Your task to perform on an android device: stop showing notifications on the lock screen Image 0: 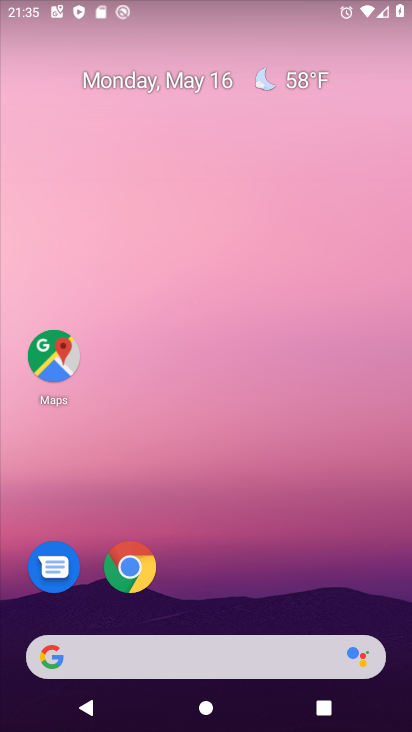
Step 0: drag from (298, 549) to (271, 95)
Your task to perform on an android device: stop showing notifications on the lock screen Image 1: 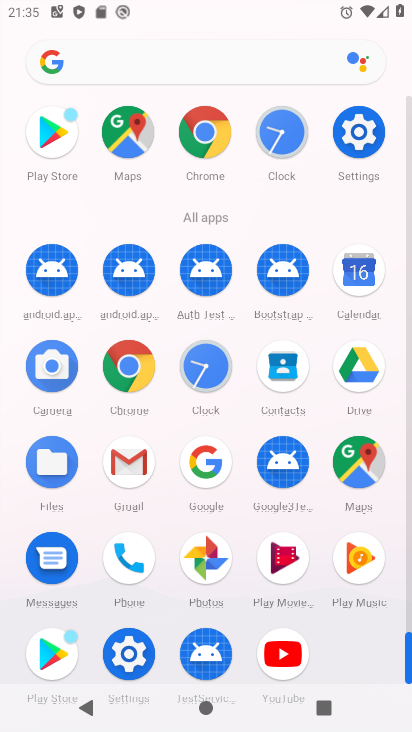
Step 1: click (358, 135)
Your task to perform on an android device: stop showing notifications on the lock screen Image 2: 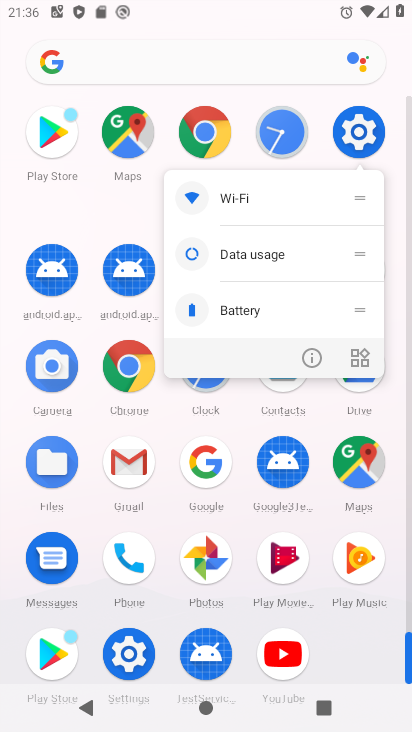
Step 2: click (359, 126)
Your task to perform on an android device: stop showing notifications on the lock screen Image 3: 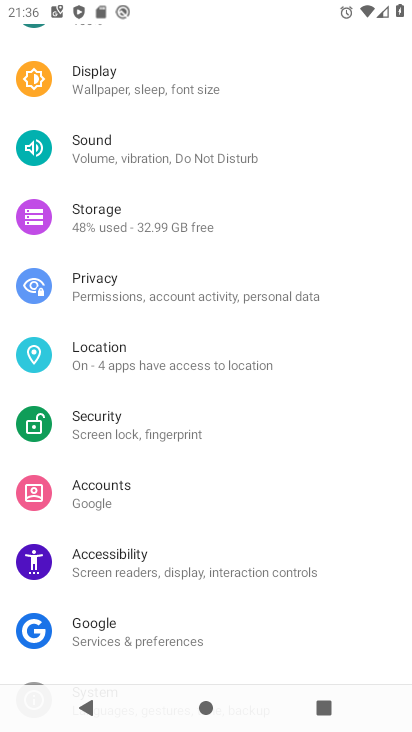
Step 3: drag from (153, 94) to (183, 553)
Your task to perform on an android device: stop showing notifications on the lock screen Image 4: 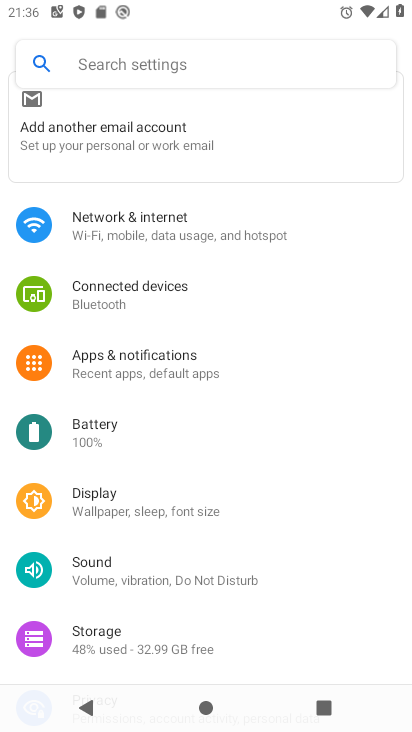
Step 4: click (137, 356)
Your task to perform on an android device: stop showing notifications on the lock screen Image 5: 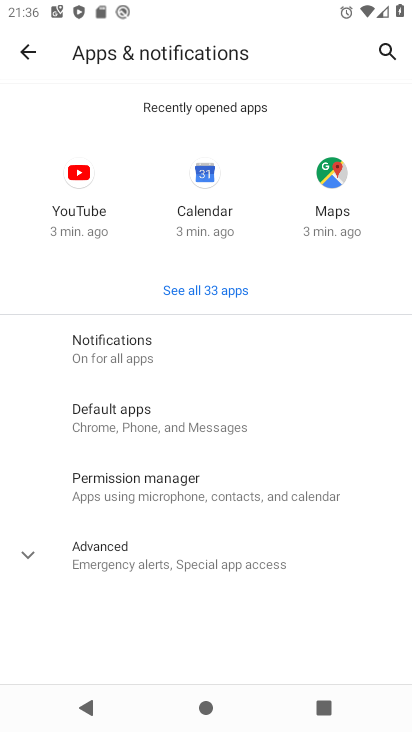
Step 5: click (140, 354)
Your task to perform on an android device: stop showing notifications on the lock screen Image 6: 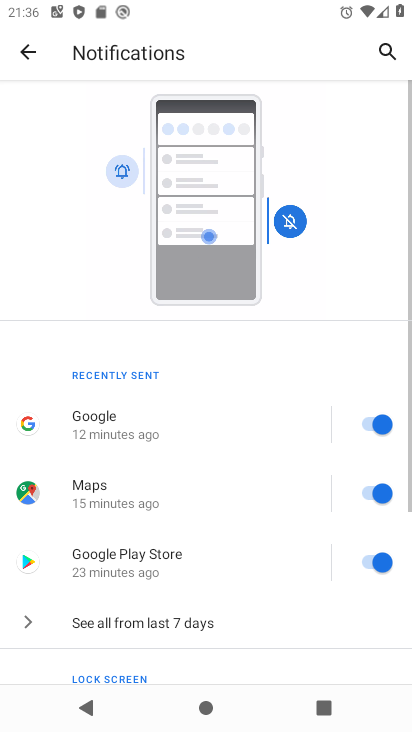
Step 6: drag from (104, 557) to (234, 185)
Your task to perform on an android device: stop showing notifications on the lock screen Image 7: 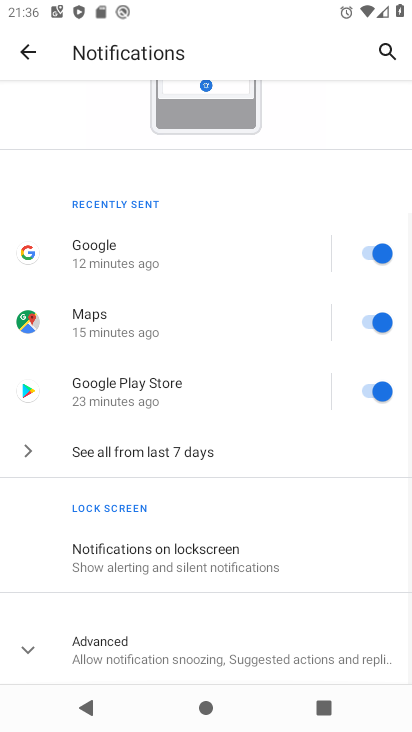
Step 7: click (143, 557)
Your task to perform on an android device: stop showing notifications on the lock screen Image 8: 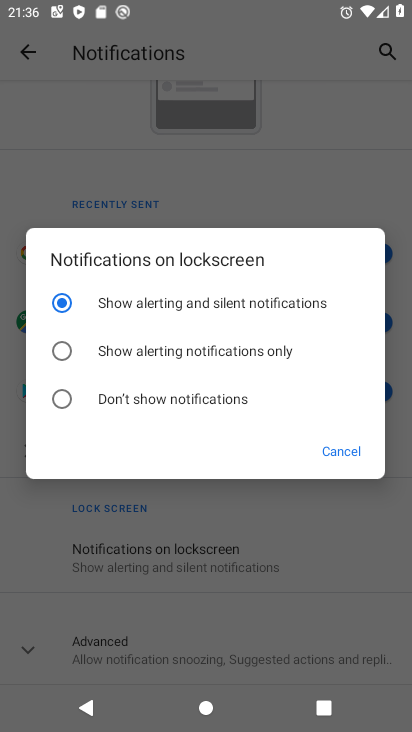
Step 8: click (139, 391)
Your task to perform on an android device: stop showing notifications on the lock screen Image 9: 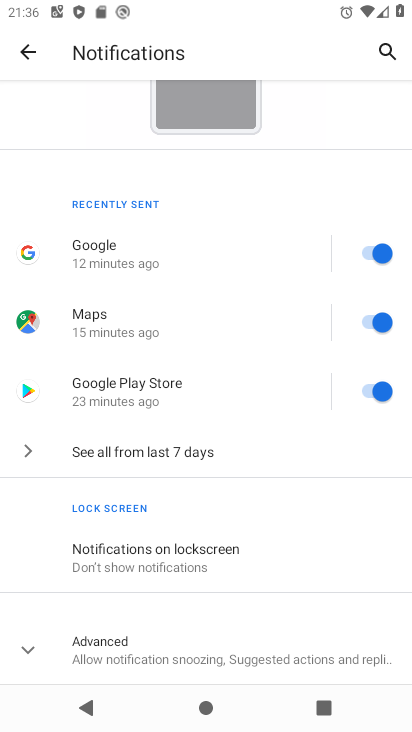
Step 9: task complete